Your task to perform on an android device: find photos in the google photos app Image 0: 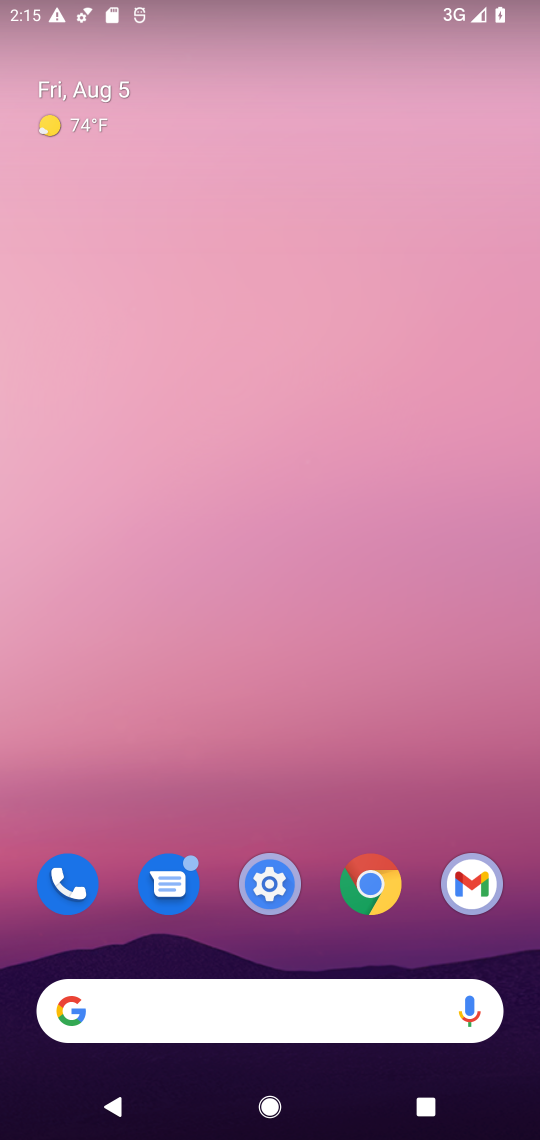
Step 0: drag from (421, 844) to (193, 50)
Your task to perform on an android device: find photos in the google photos app Image 1: 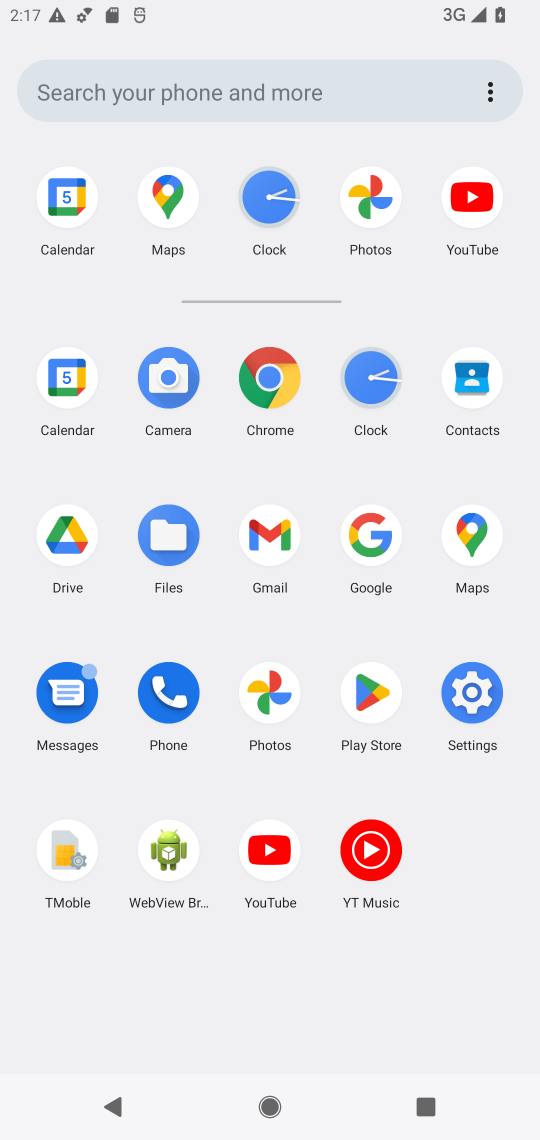
Step 1: click (278, 676)
Your task to perform on an android device: find photos in the google photos app Image 2: 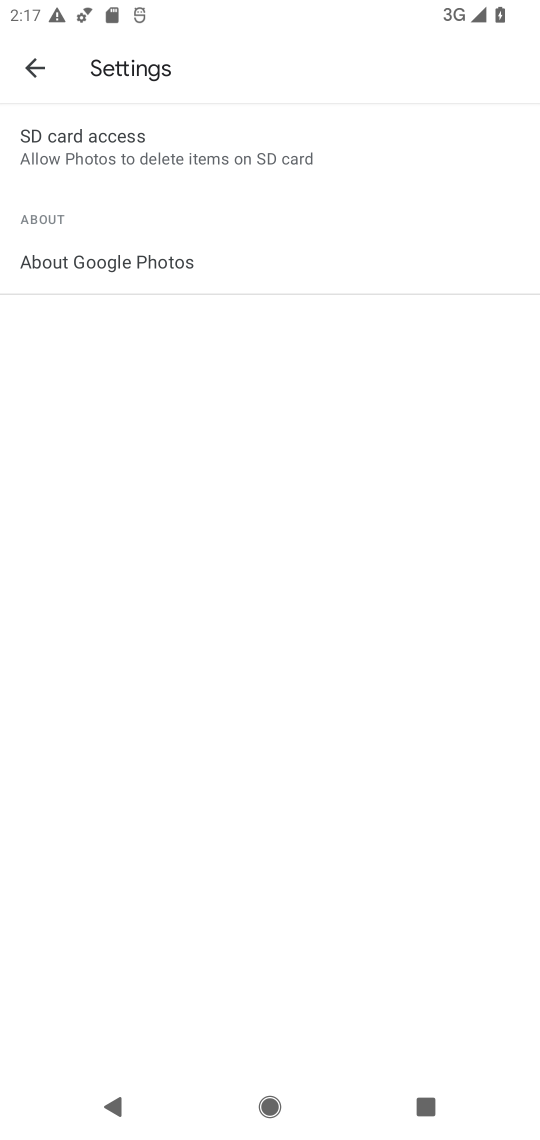
Step 2: task complete